Your task to perform on an android device: refresh tabs in the chrome app Image 0: 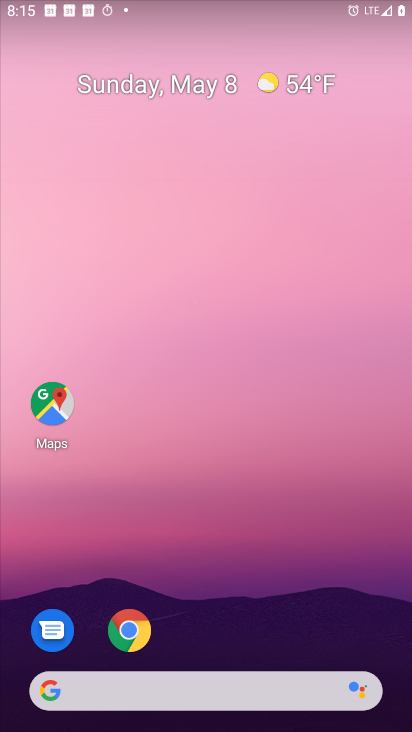
Step 0: click (132, 629)
Your task to perform on an android device: refresh tabs in the chrome app Image 1: 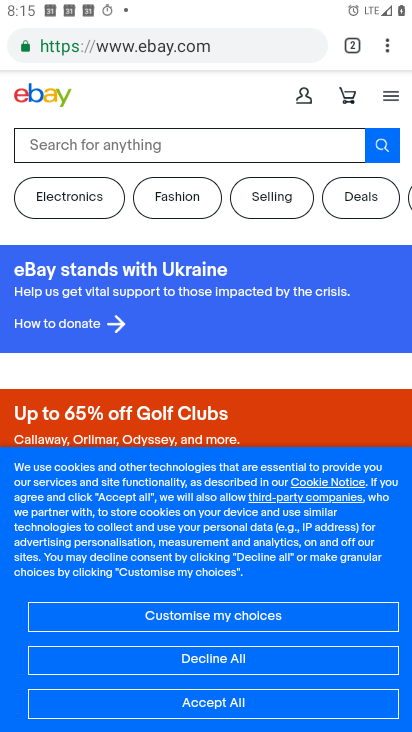
Step 1: click (381, 55)
Your task to perform on an android device: refresh tabs in the chrome app Image 2: 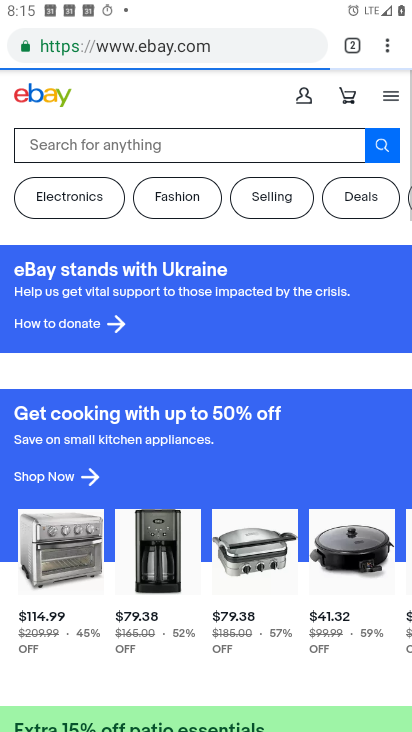
Step 2: click (387, 46)
Your task to perform on an android device: refresh tabs in the chrome app Image 3: 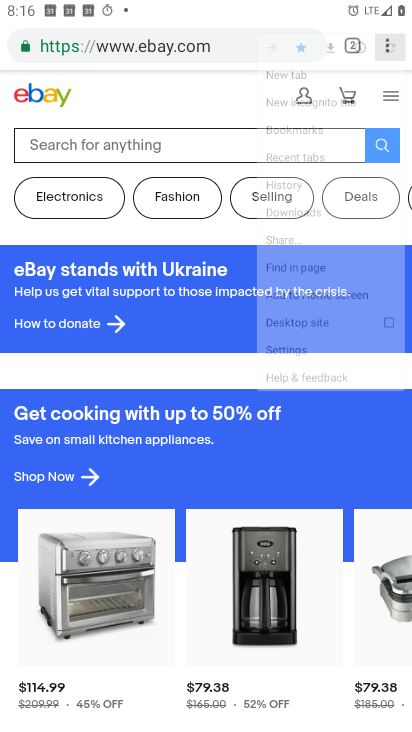
Step 3: click (377, 51)
Your task to perform on an android device: refresh tabs in the chrome app Image 4: 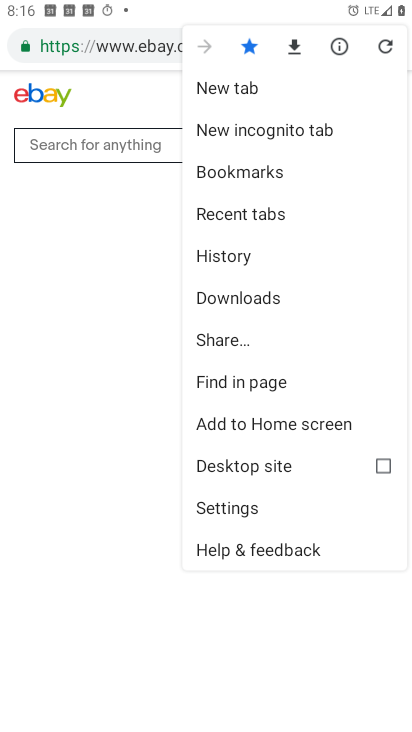
Step 4: task complete